Your task to perform on an android device: Go to Google maps Image 0: 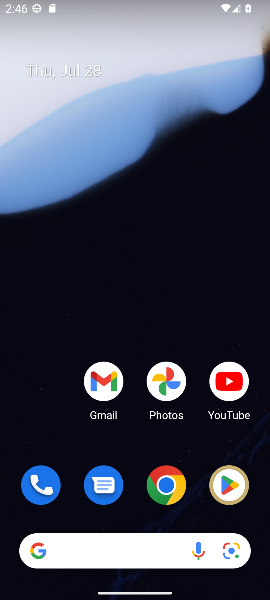
Step 0: drag from (91, 430) to (134, 91)
Your task to perform on an android device: Go to Google maps Image 1: 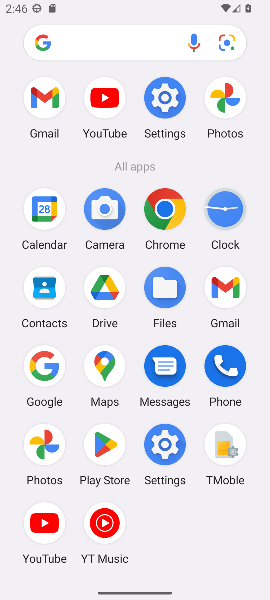
Step 1: drag from (112, 233) to (179, 492)
Your task to perform on an android device: Go to Google maps Image 2: 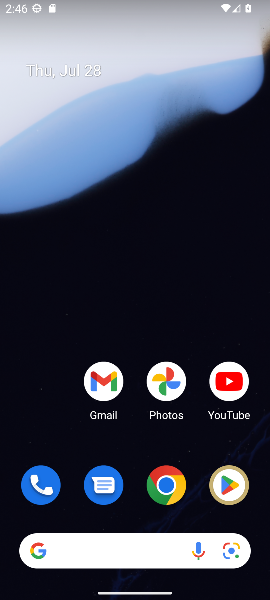
Step 2: drag from (142, 505) to (164, 200)
Your task to perform on an android device: Go to Google maps Image 3: 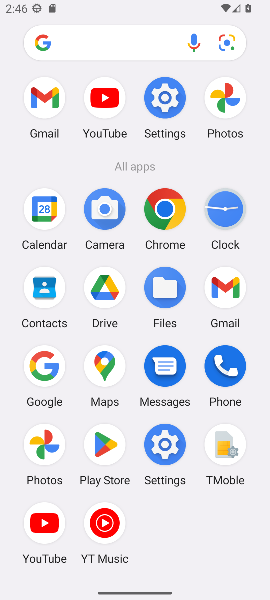
Step 3: click (106, 365)
Your task to perform on an android device: Go to Google maps Image 4: 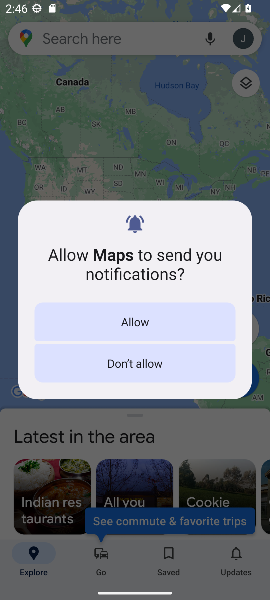
Step 4: click (165, 317)
Your task to perform on an android device: Go to Google maps Image 5: 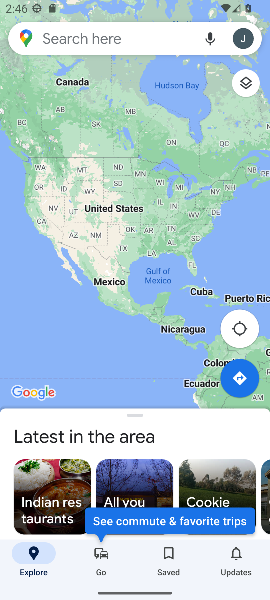
Step 5: task complete